Your task to perform on an android device: Add usb-b to the cart on newegg, then select checkout. Image 0: 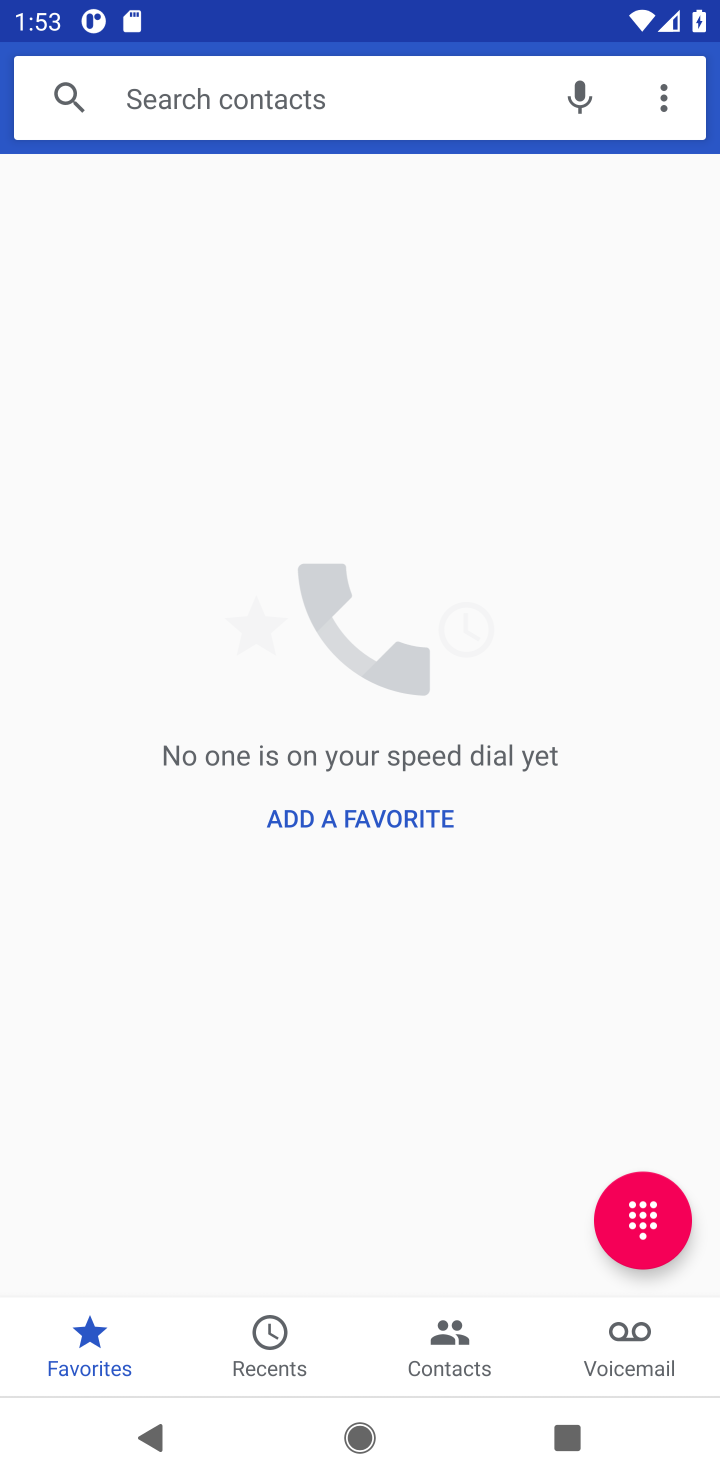
Step 0: press home button
Your task to perform on an android device: Add usb-b to the cart on newegg, then select checkout. Image 1: 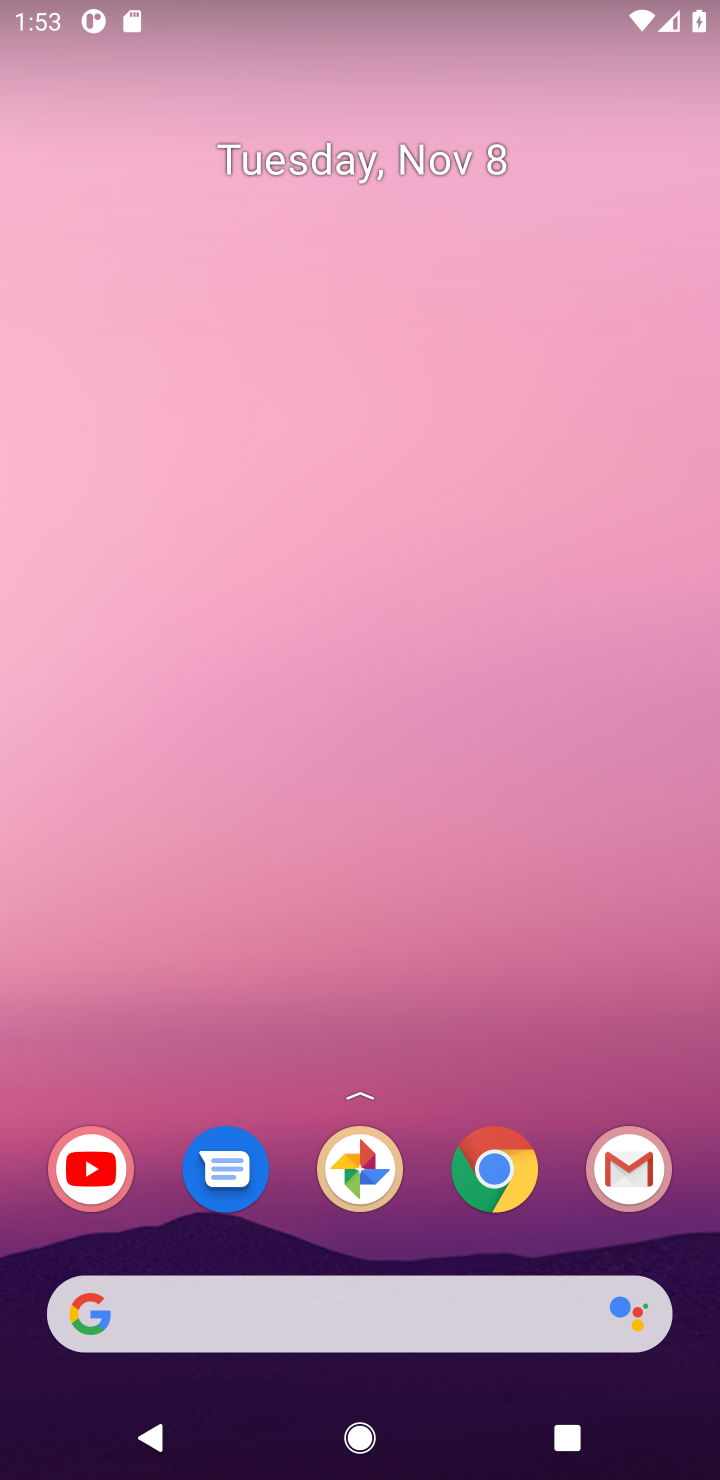
Step 1: click (531, 1174)
Your task to perform on an android device: Add usb-b to the cart on newegg, then select checkout. Image 2: 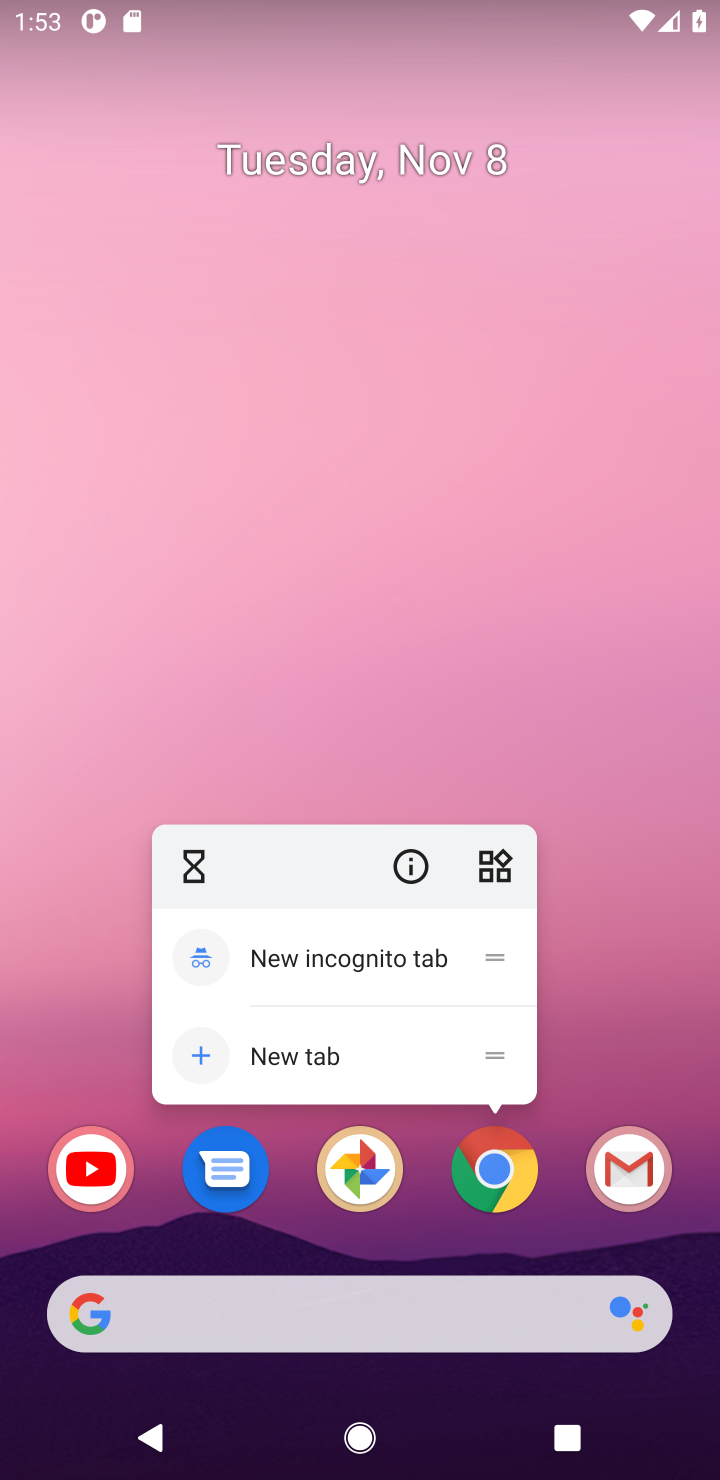
Step 2: click (531, 1174)
Your task to perform on an android device: Add usb-b to the cart on newegg, then select checkout. Image 3: 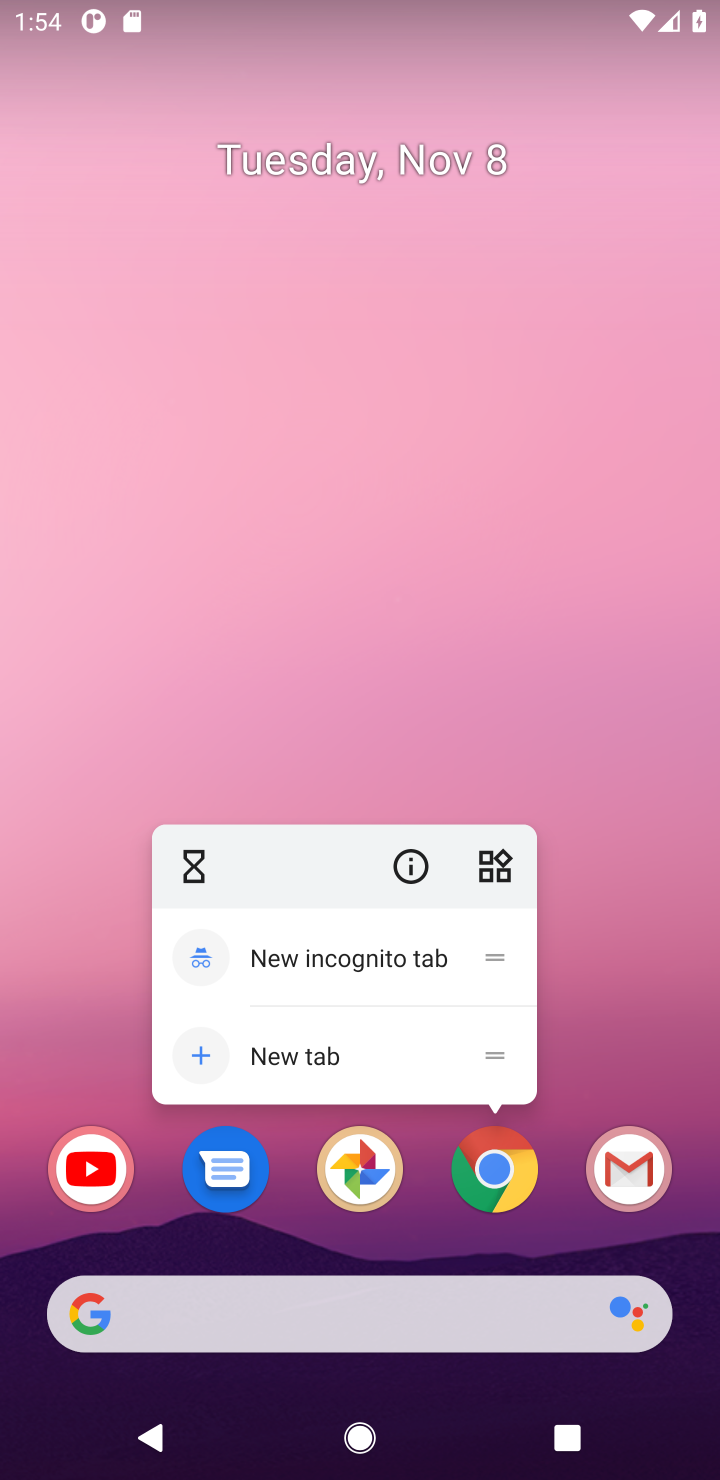
Step 3: click (525, 1174)
Your task to perform on an android device: Add usb-b to the cart on newegg, then select checkout. Image 4: 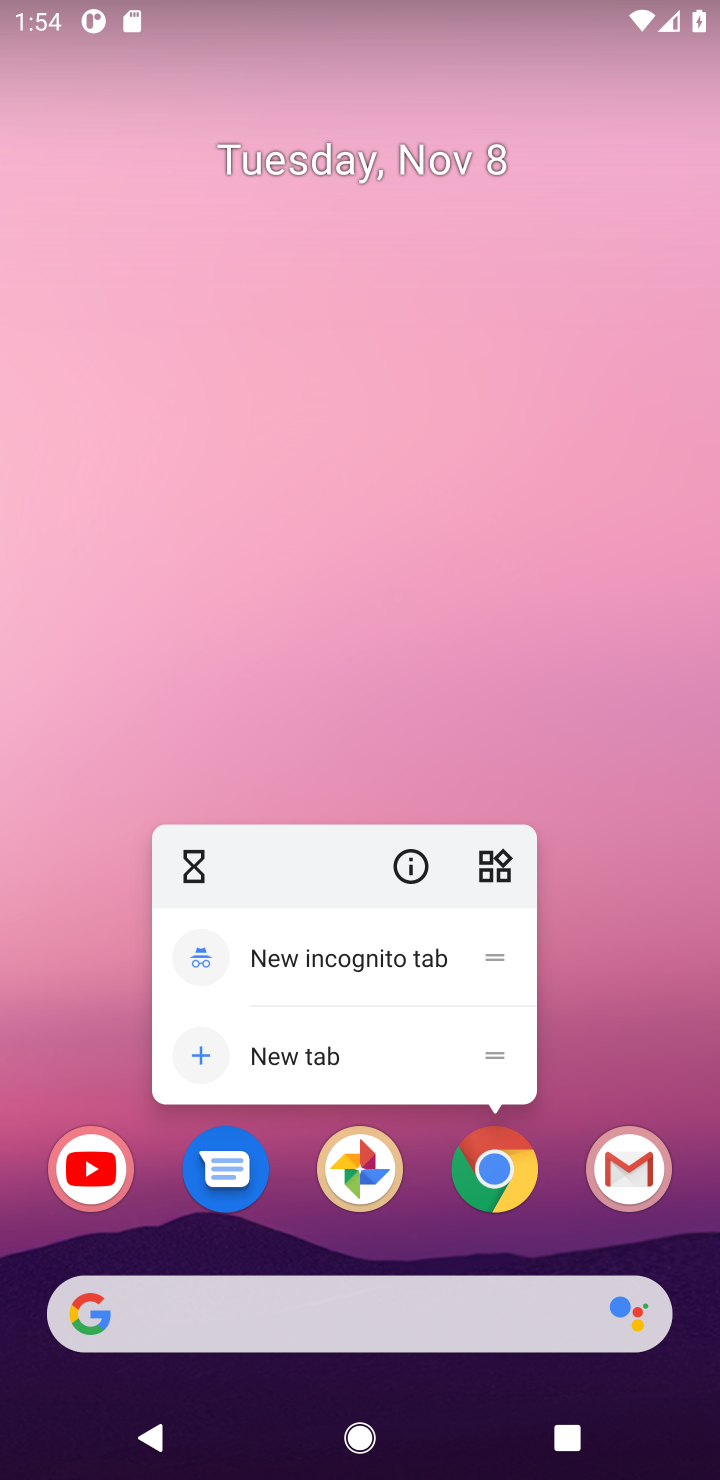
Step 4: click (496, 1166)
Your task to perform on an android device: Add usb-b to the cart on newegg, then select checkout. Image 5: 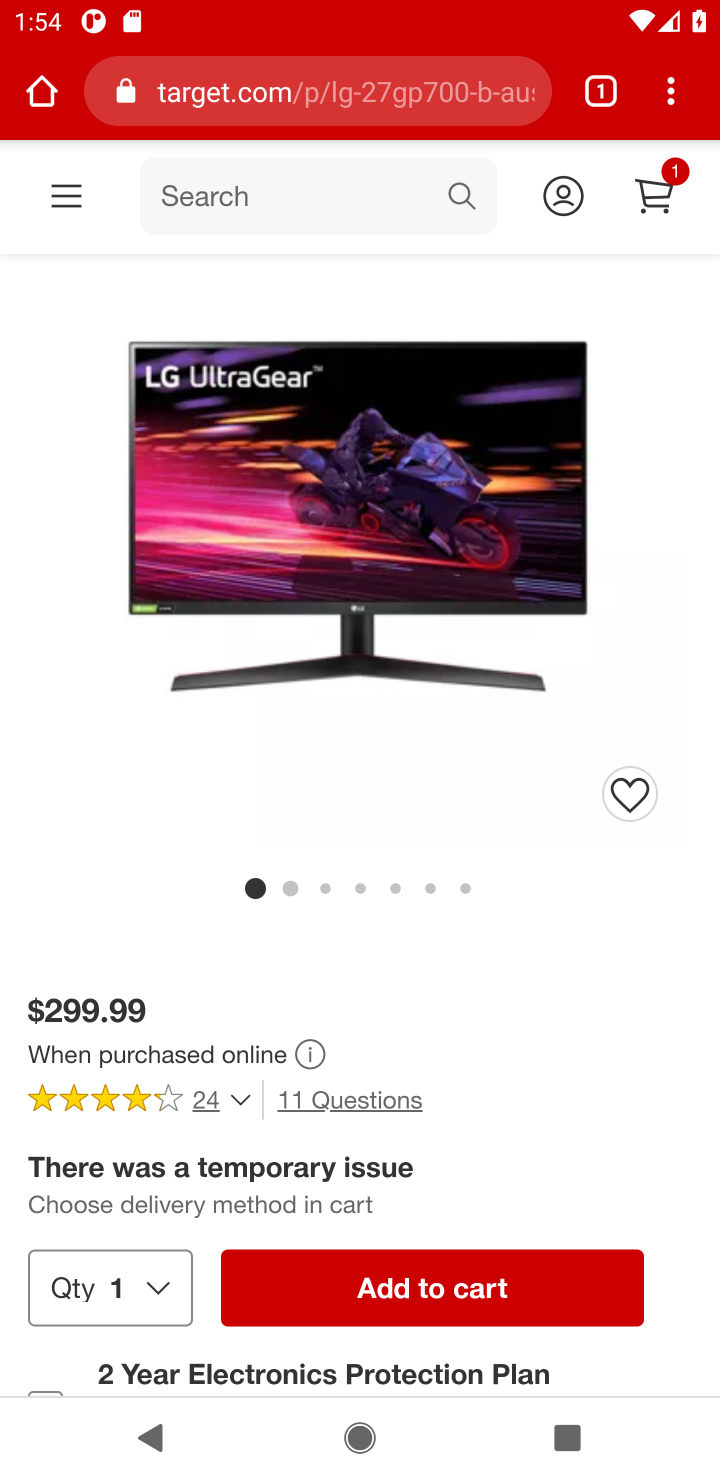
Step 5: click (270, 208)
Your task to perform on an android device: Add usb-b to the cart on newegg, then select checkout. Image 6: 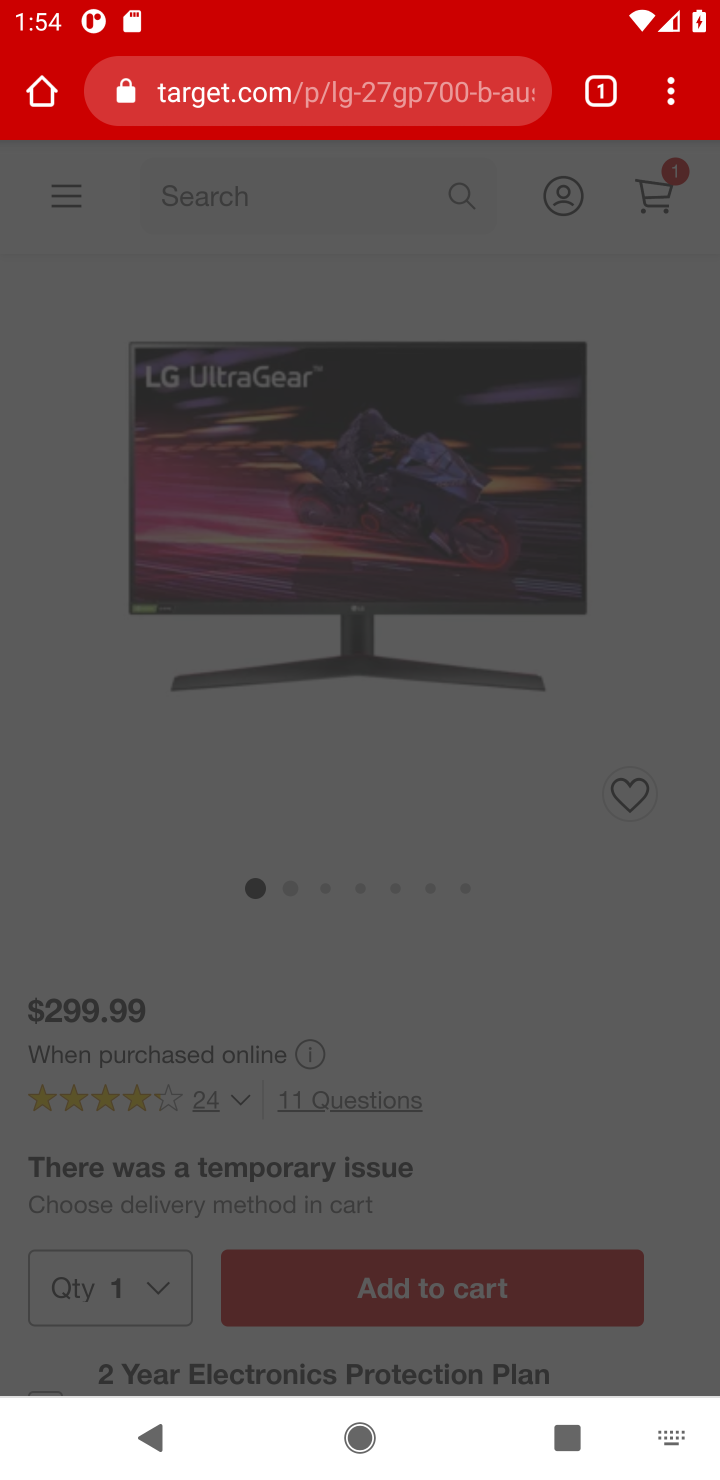
Step 6: click (312, 100)
Your task to perform on an android device: Add usb-b to the cart on newegg, then select checkout. Image 7: 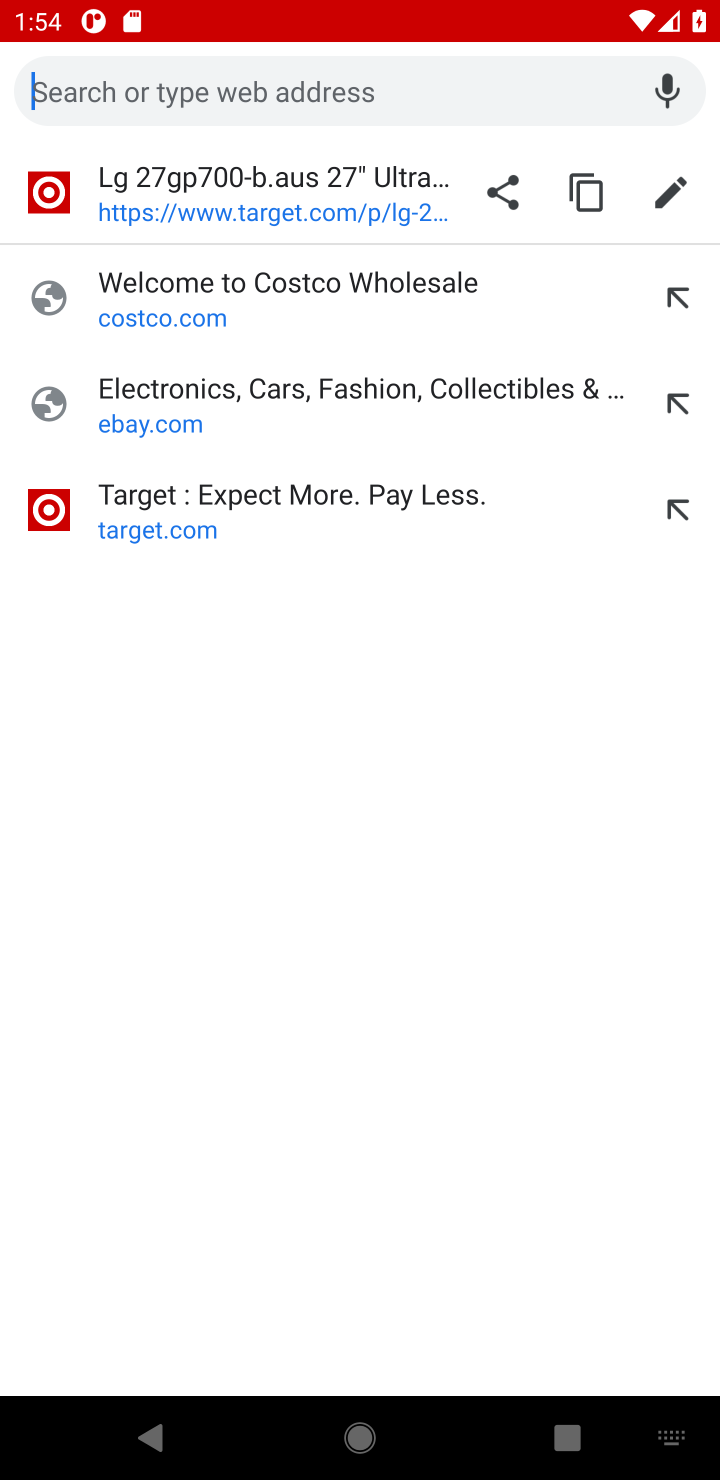
Step 7: type "newegg"
Your task to perform on an android device: Add usb-b to the cart on newegg, then select checkout. Image 8: 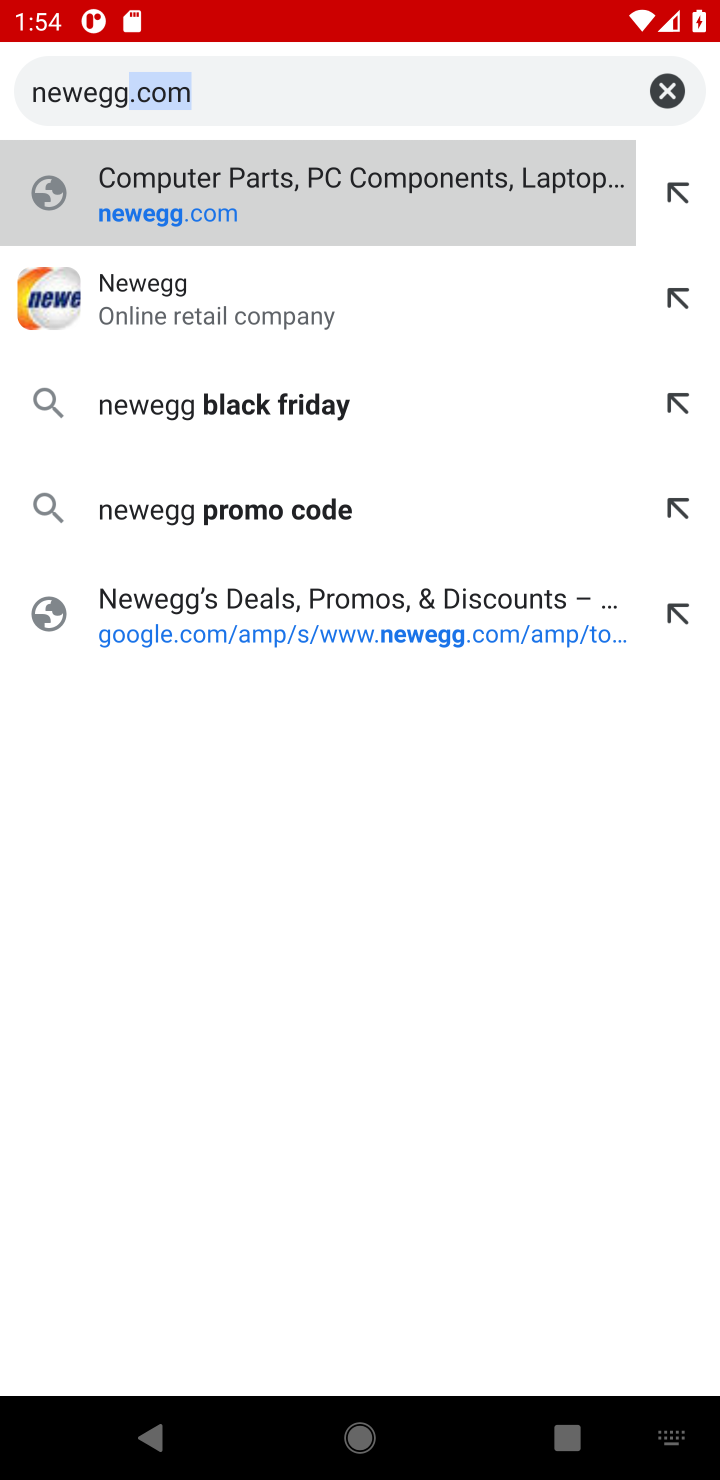
Step 8: click (298, 219)
Your task to perform on an android device: Add usb-b to the cart on newegg, then select checkout. Image 9: 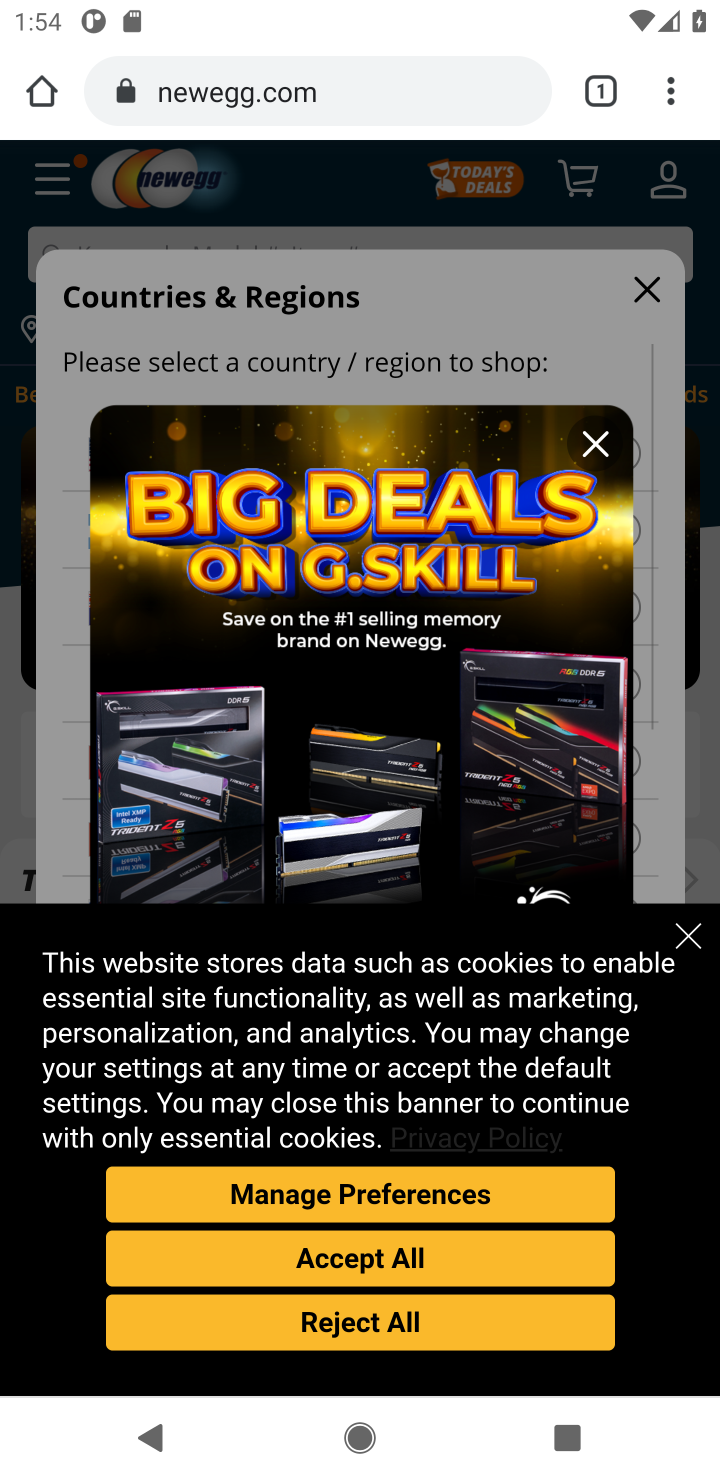
Step 9: click (403, 1267)
Your task to perform on an android device: Add usb-b to the cart on newegg, then select checkout. Image 10: 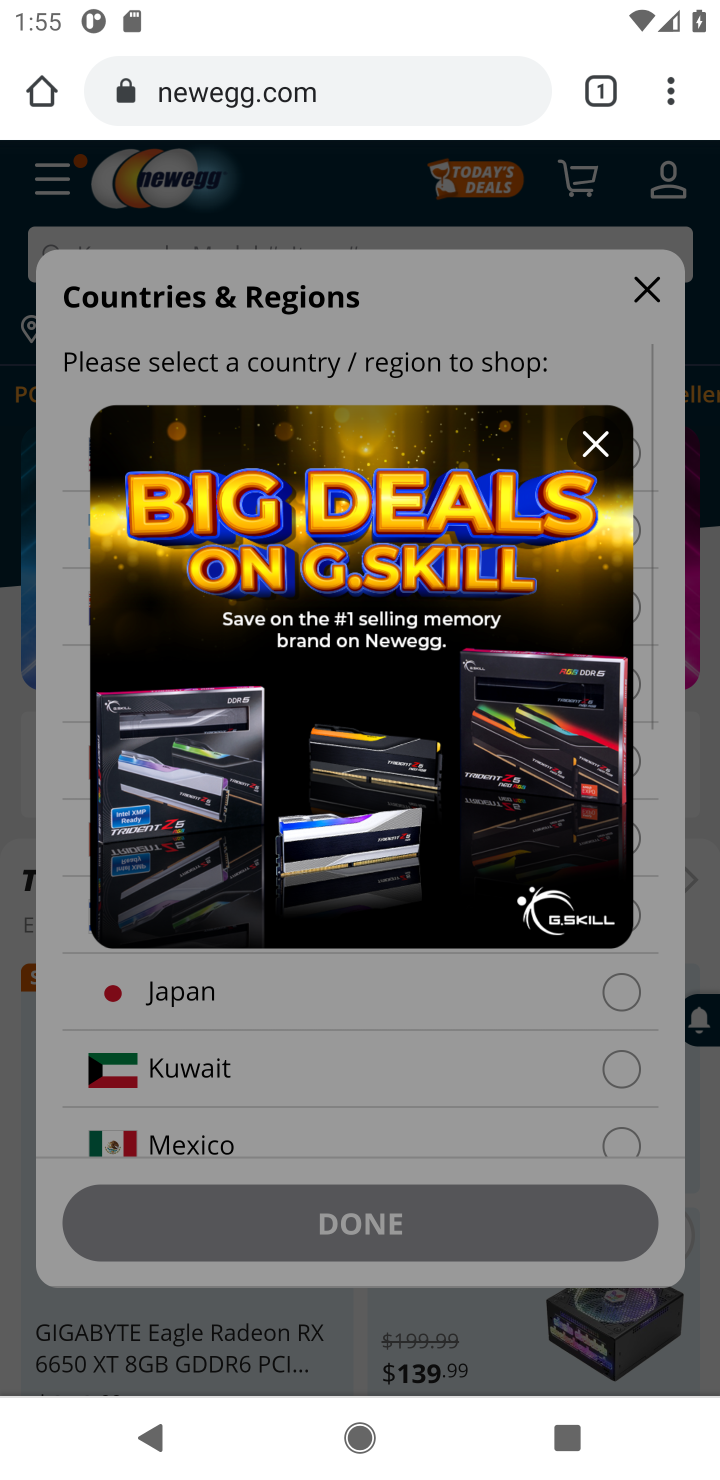
Step 10: click (599, 462)
Your task to perform on an android device: Add usb-b to the cart on newegg, then select checkout. Image 11: 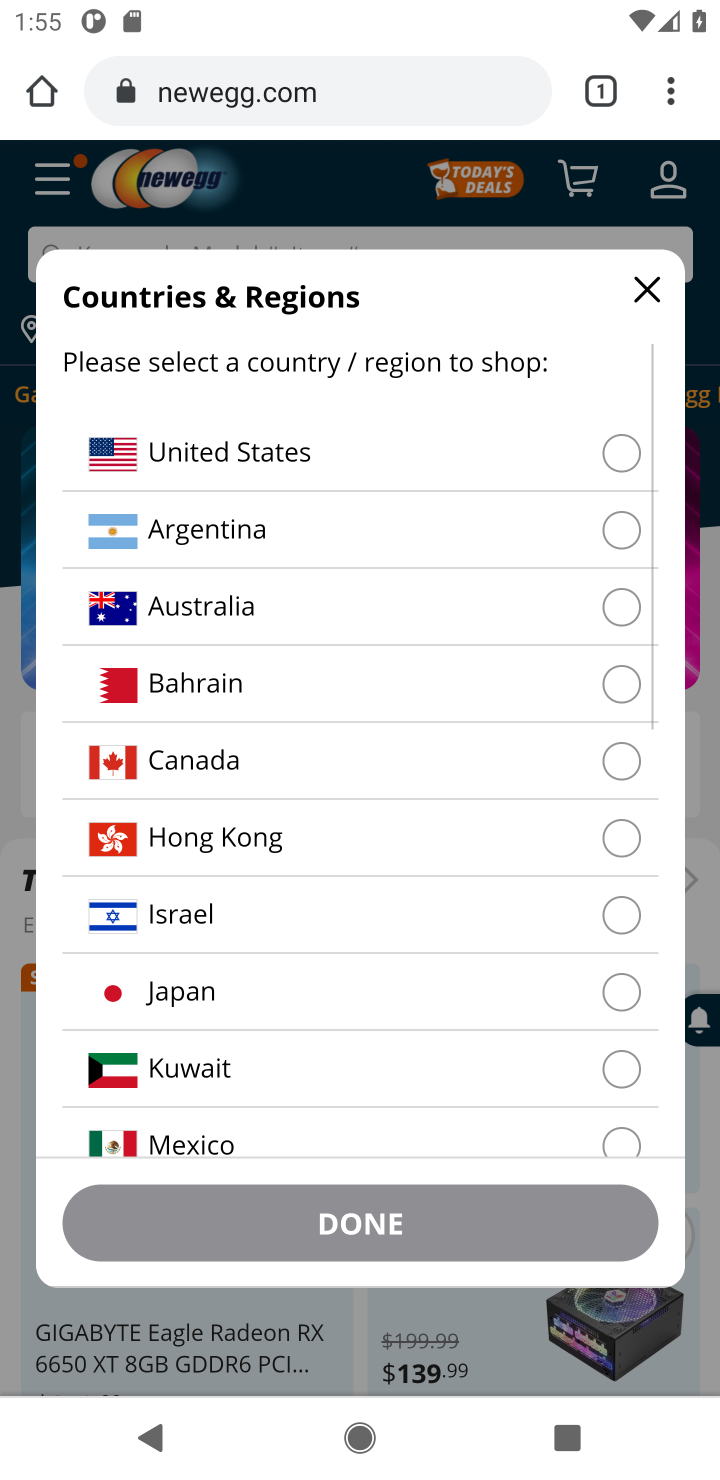
Step 11: click (337, 463)
Your task to perform on an android device: Add usb-b to the cart on newegg, then select checkout. Image 12: 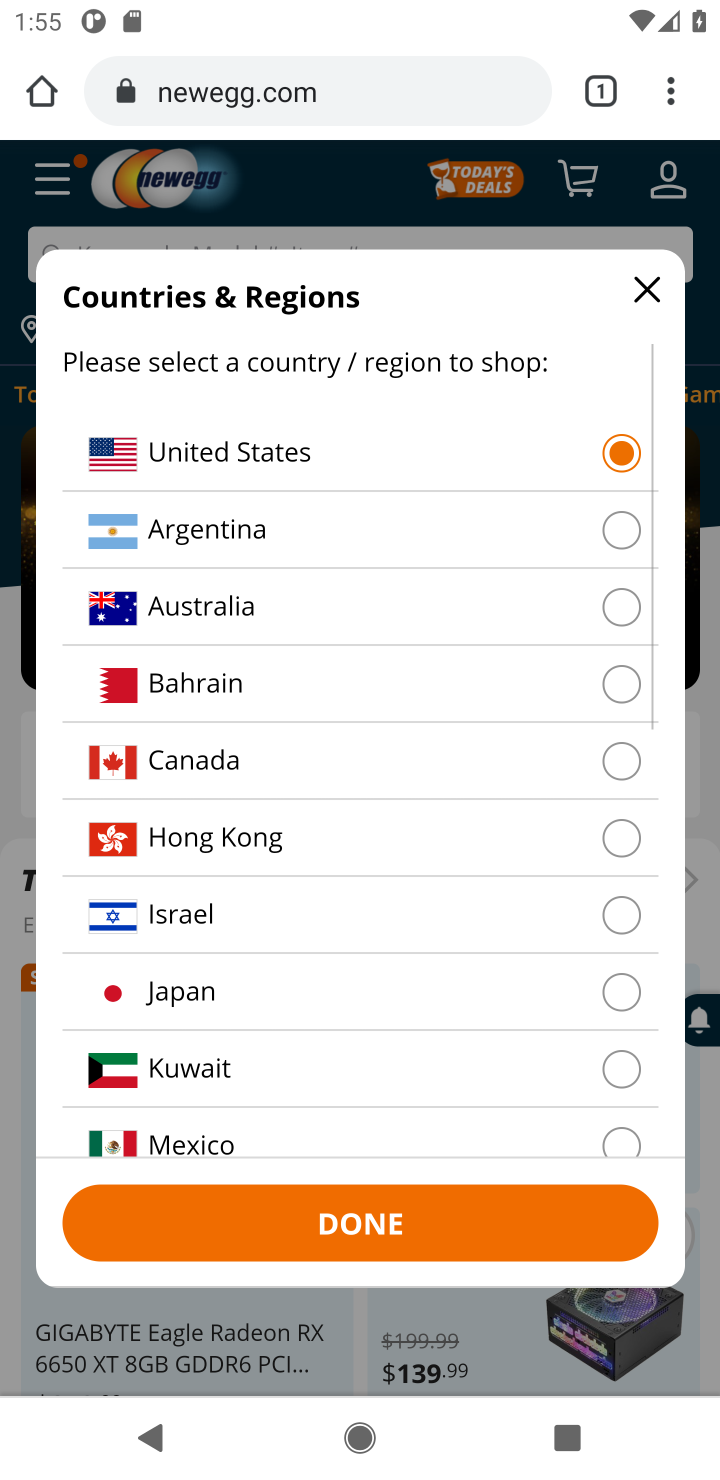
Step 12: click (428, 1216)
Your task to perform on an android device: Add usb-b to the cart on newegg, then select checkout. Image 13: 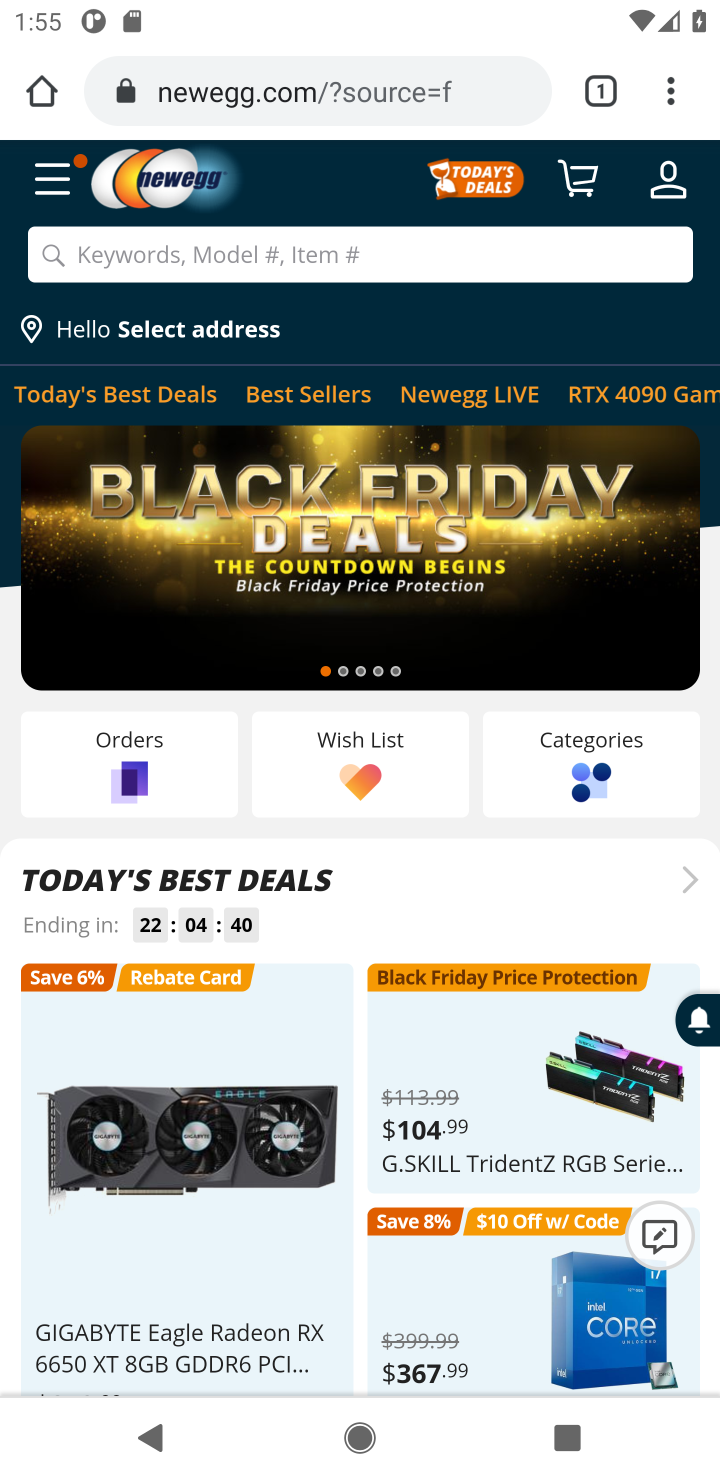
Step 13: click (435, 252)
Your task to perform on an android device: Add usb-b to the cart on newegg, then select checkout. Image 14: 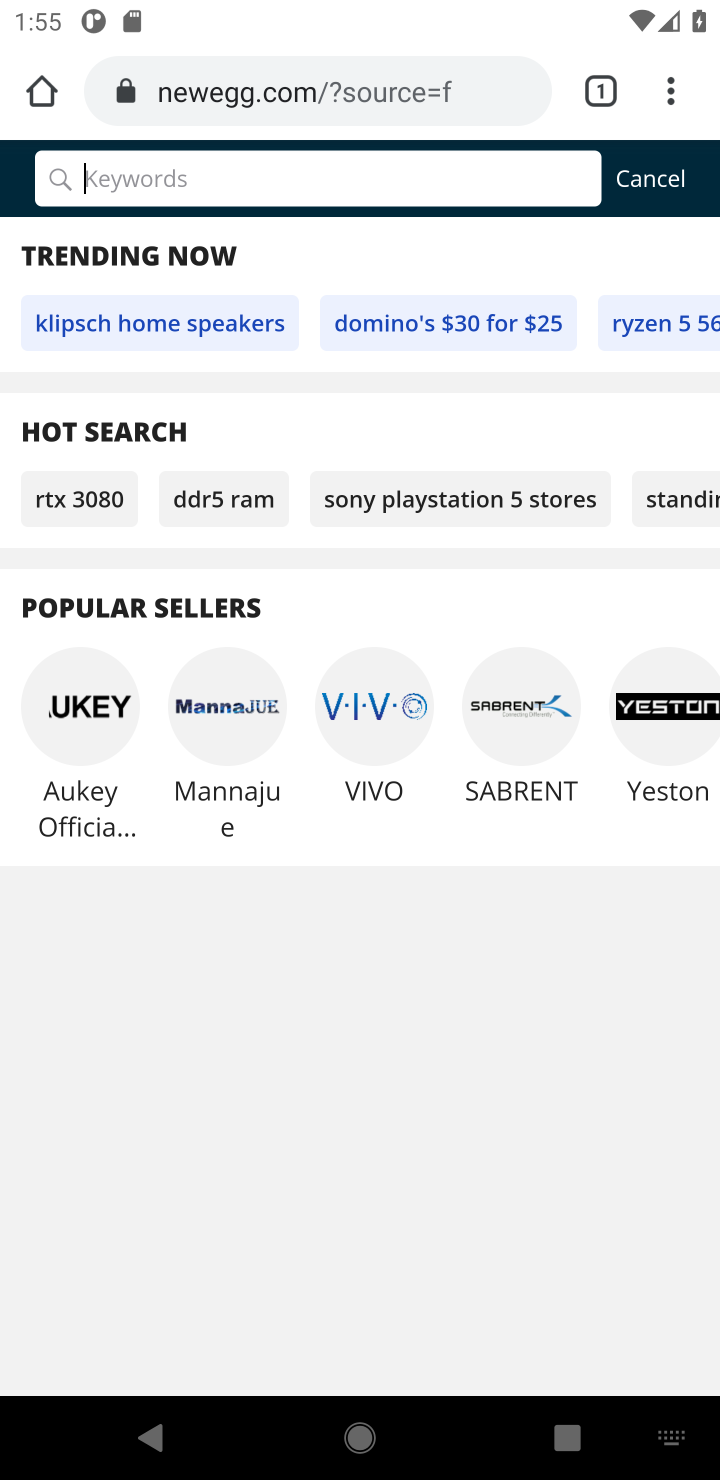
Step 14: type "usb-b"
Your task to perform on an android device: Add usb-b to the cart on newegg, then select checkout. Image 15: 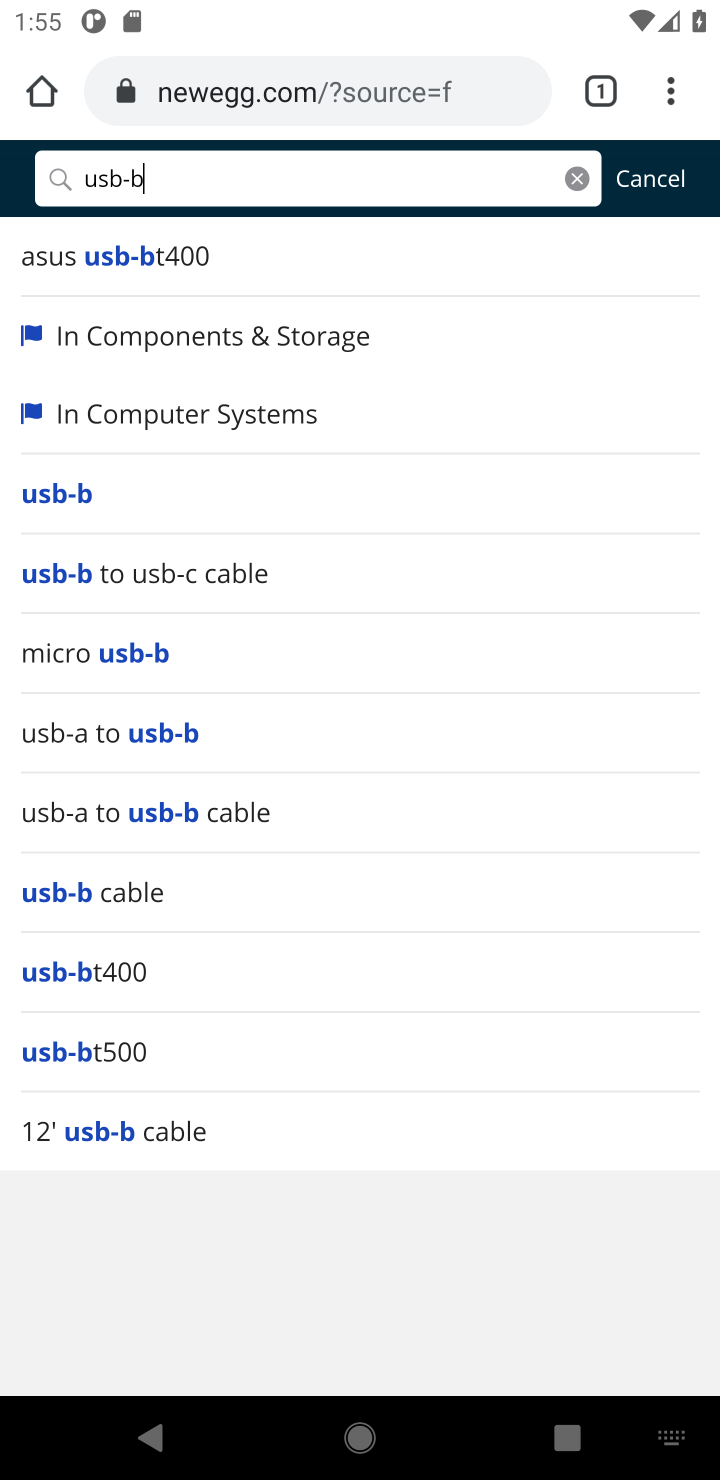
Step 15: press enter
Your task to perform on an android device: Add usb-b to the cart on newegg, then select checkout. Image 16: 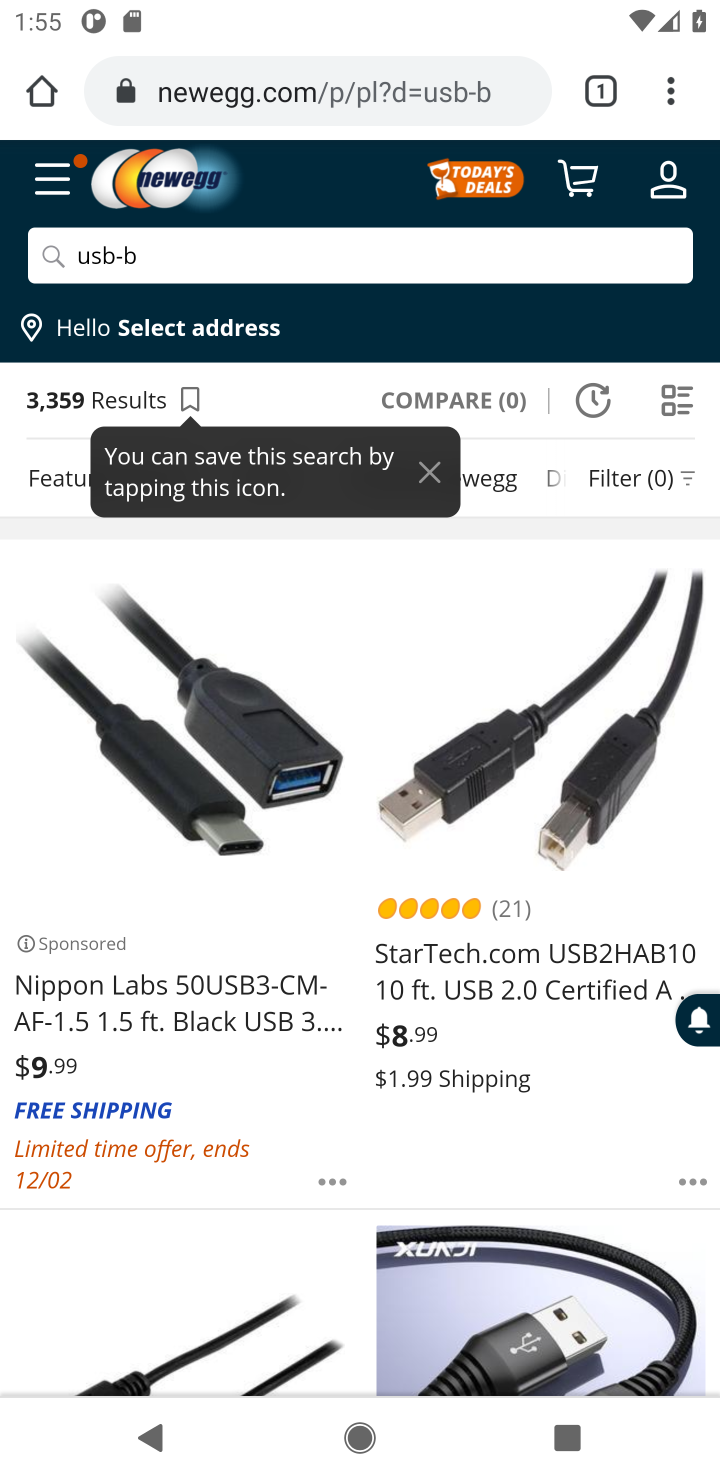
Step 16: click (123, 738)
Your task to perform on an android device: Add usb-b to the cart on newegg, then select checkout. Image 17: 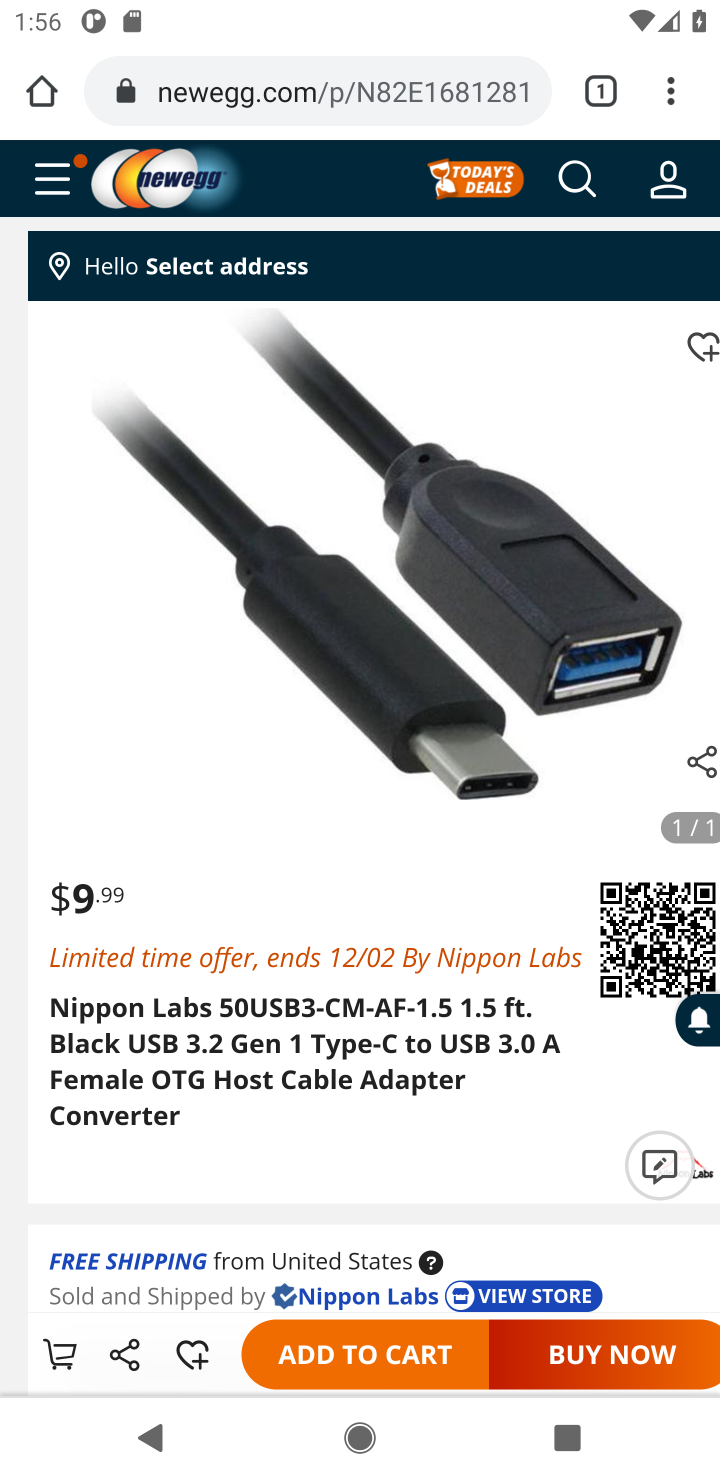
Step 17: click (409, 1348)
Your task to perform on an android device: Add usb-b to the cart on newegg, then select checkout. Image 18: 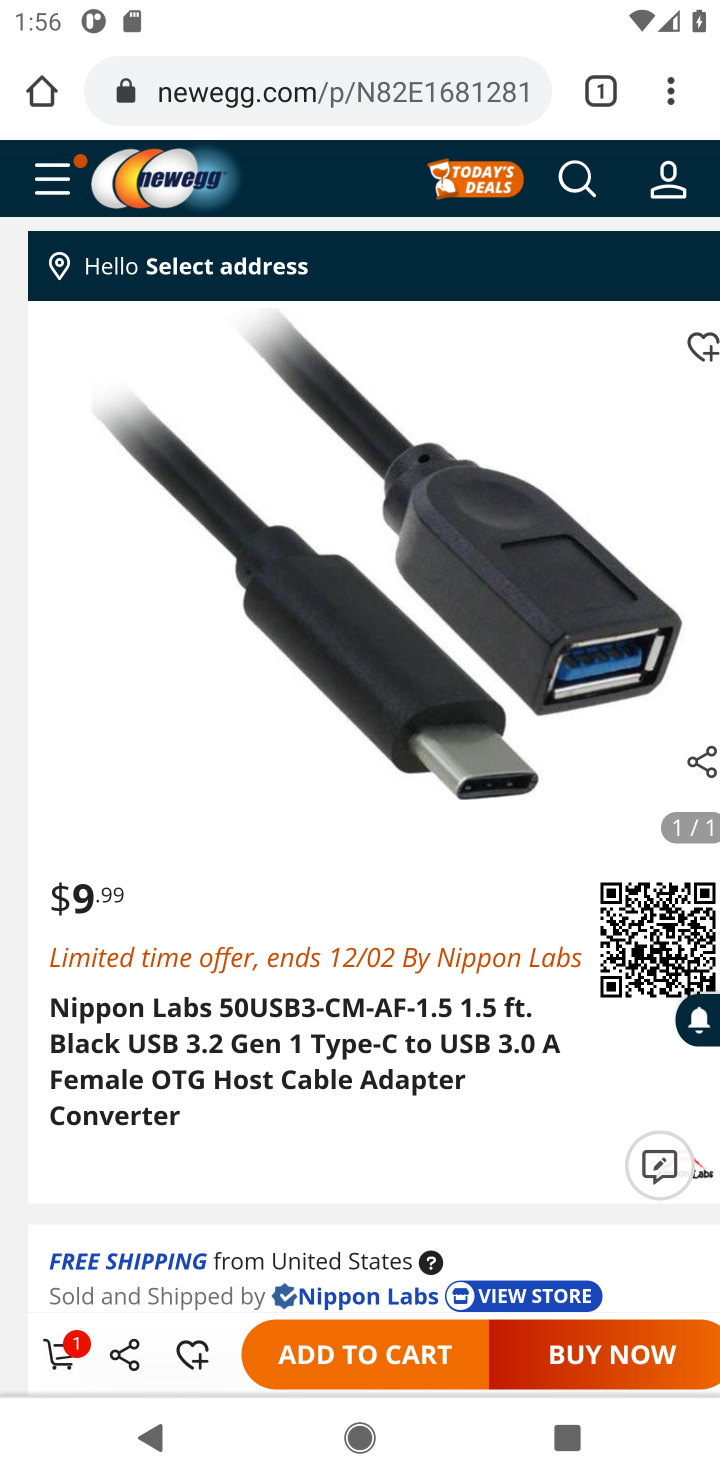
Step 18: click (64, 1363)
Your task to perform on an android device: Add usb-b to the cart on newegg, then select checkout. Image 19: 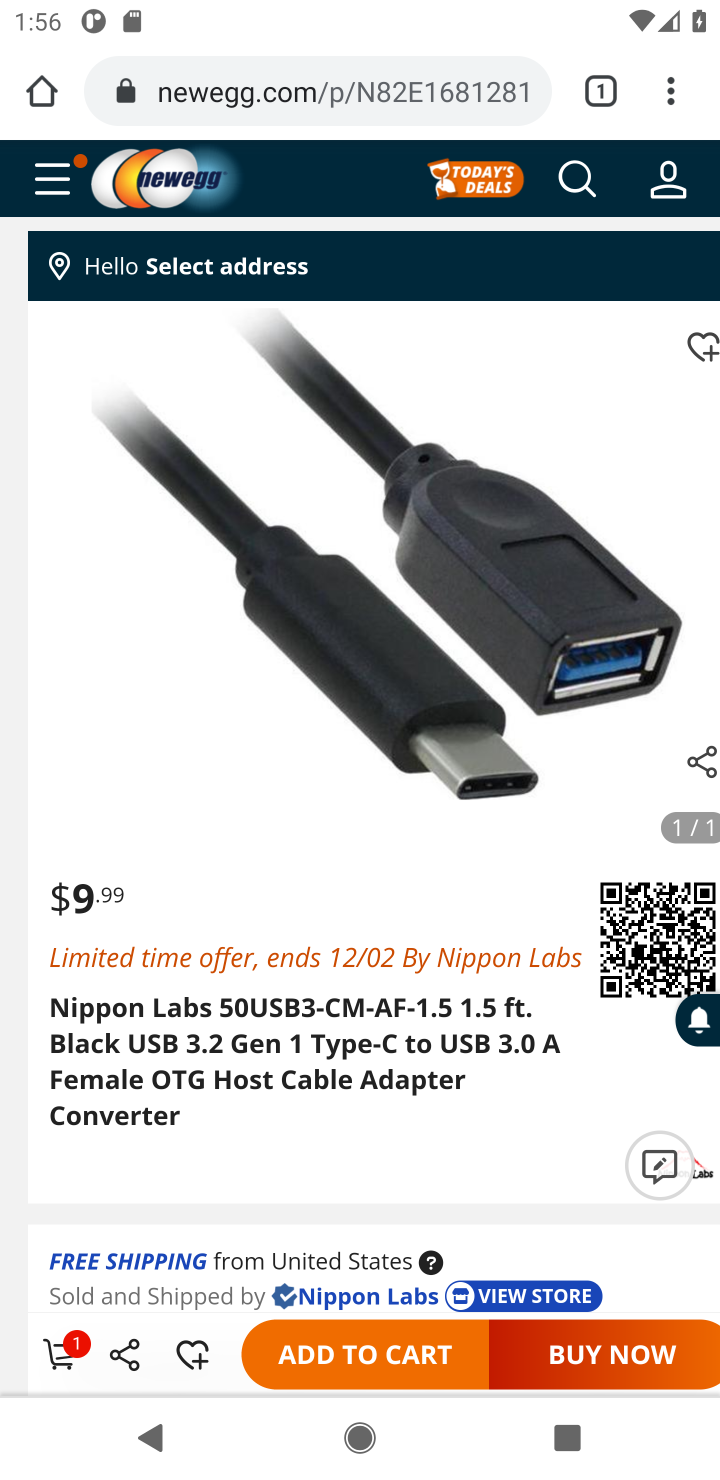
Step 19: click (52, 1349)
Your task to perform on an android device: Add usb-b to the cart on newegg, then select checkout. Image 20: 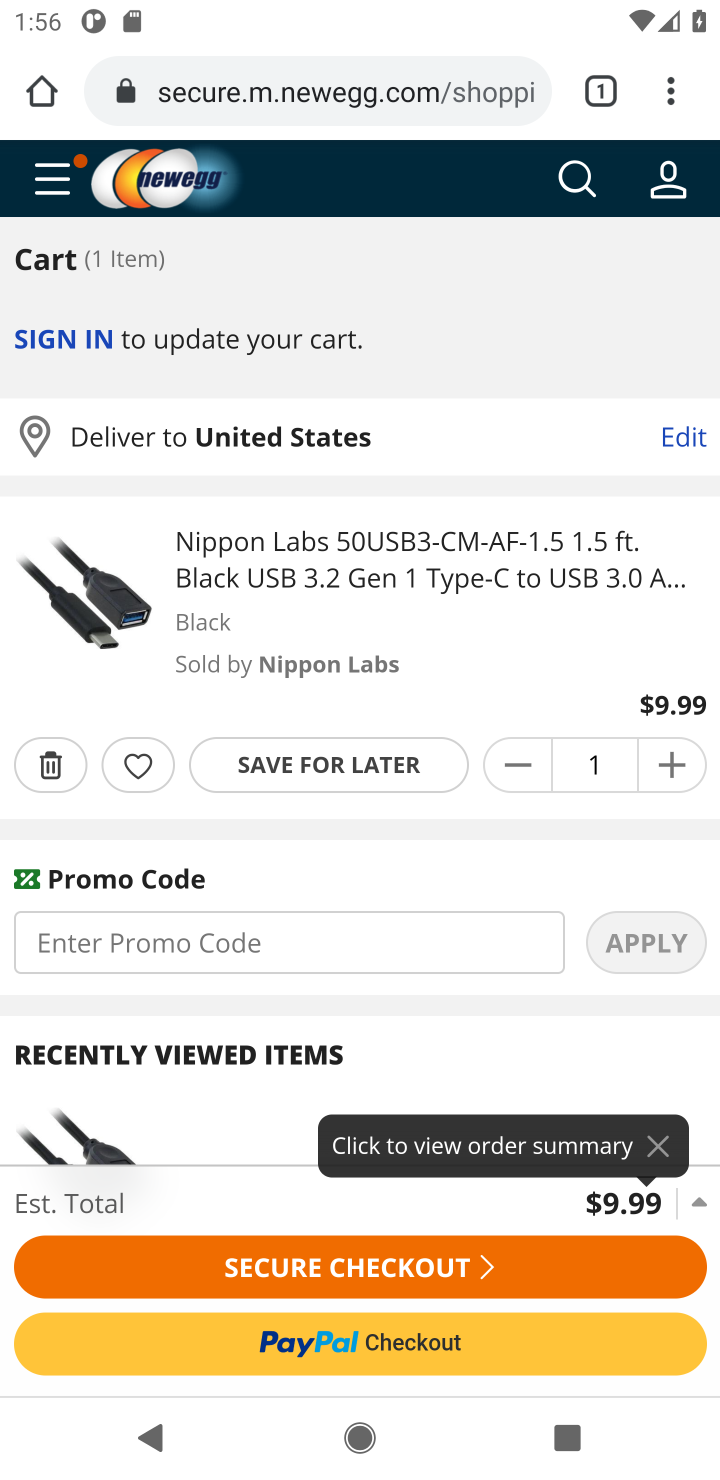
Step 20: click (463, 1257)
Your task to perform on an android device: Add usb-b to the cart on newegg, then select checkout. Image 21: 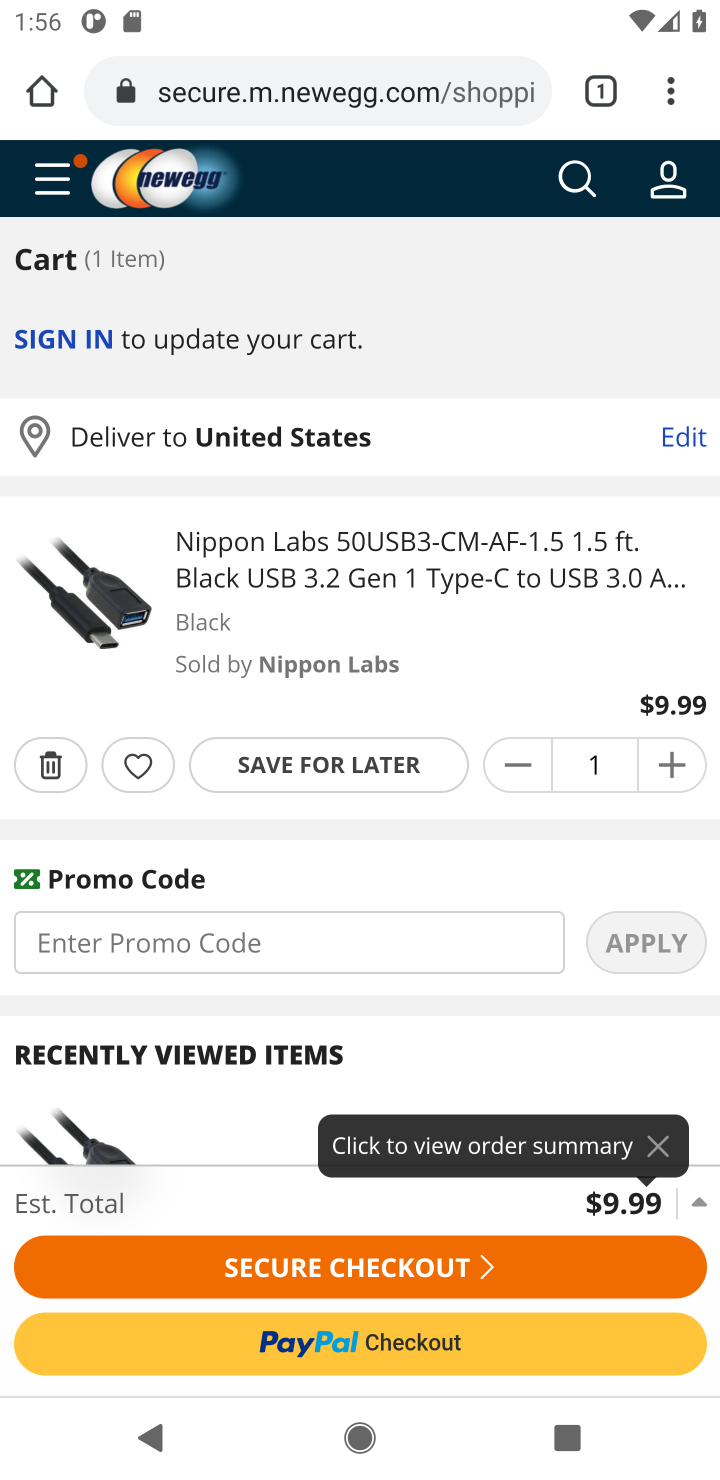
Step 21: click (476, 1287)
Your task to perform on an android device: Add usb-b to the cart on newegg, then select checkout. Image 22: 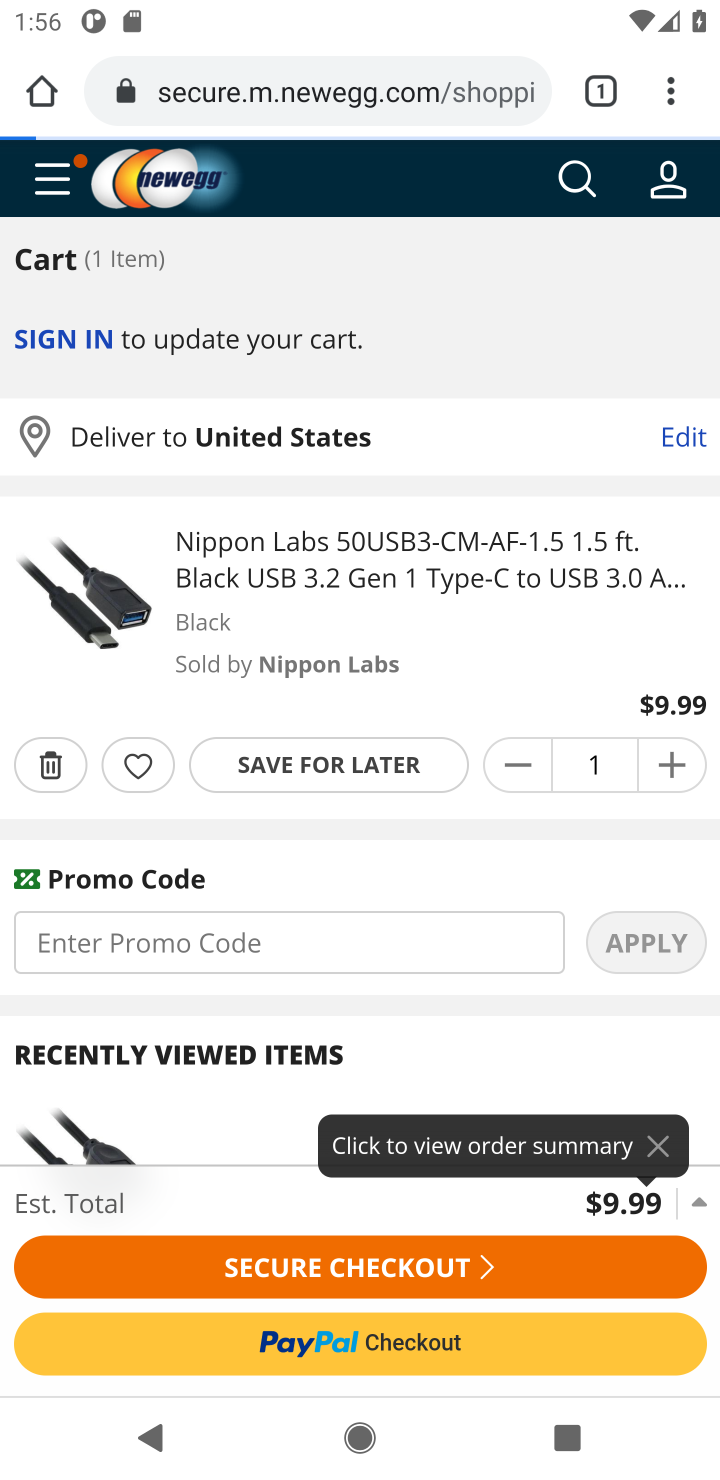
Step 22: task complete